Your task to perform on an android device: What's the weather going to be this weekend? Image 0: 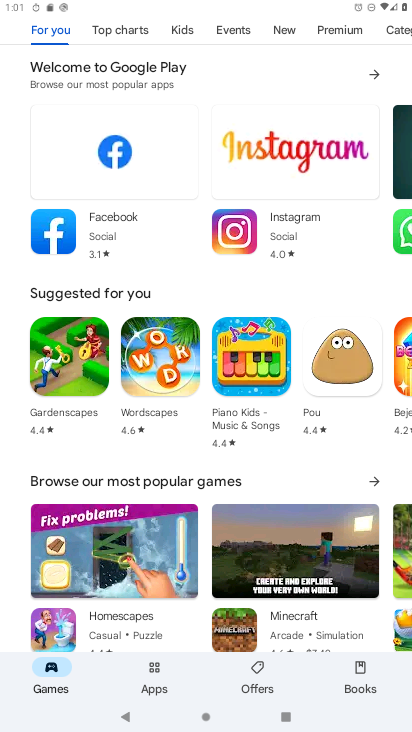
Step 0: press home button
Your task to perform on an android device: What's the weather going to be this weekend? Image 1: 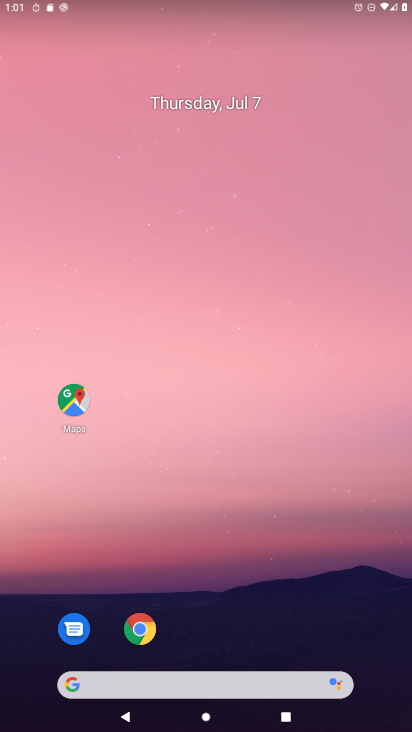
Step 1: drag from (229, 613) to (231, 117)
Your task to perform on an android device: What's the weather going to be this weekend? Image 2: 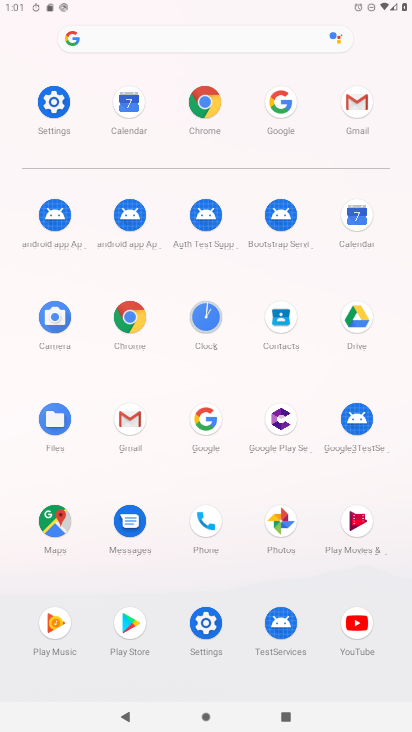
Step 2: click (198, 412)
Your task to perform on an android device: What's the weather going to be this weekend? Image 3: 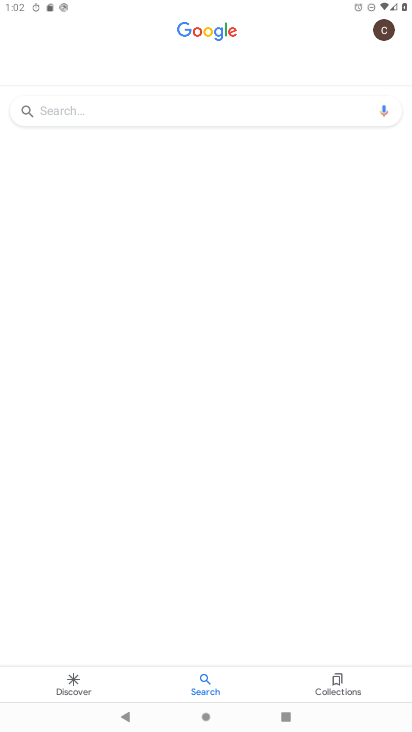
Step 3: click (170, 113)
Your task to perform on an android device: What's the weather going to be this weekend? Image 4: 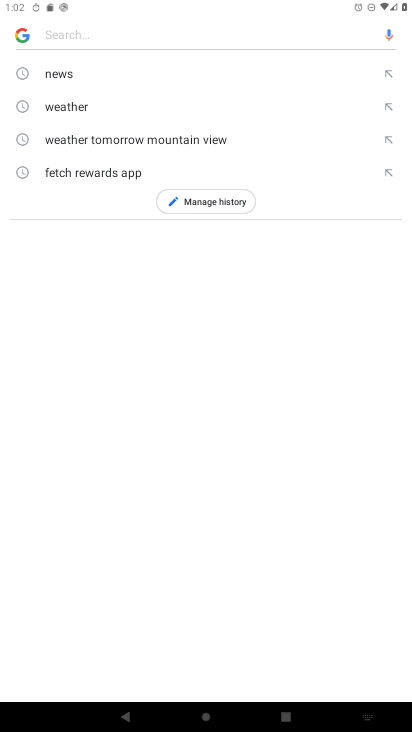
Step 4: click (104, 109)
Your task to perform on an android device: What's the weather going to be this weekend? Image 5: 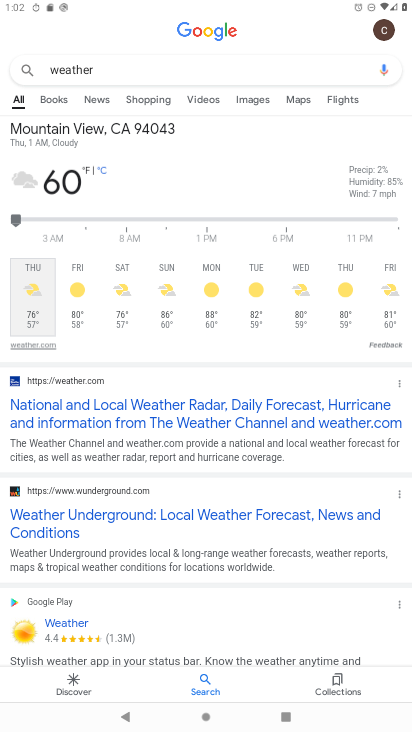
Step 5: click (298, 173)
Your task to perform on an android device: What's the weather going to be this weekend? Image 6: 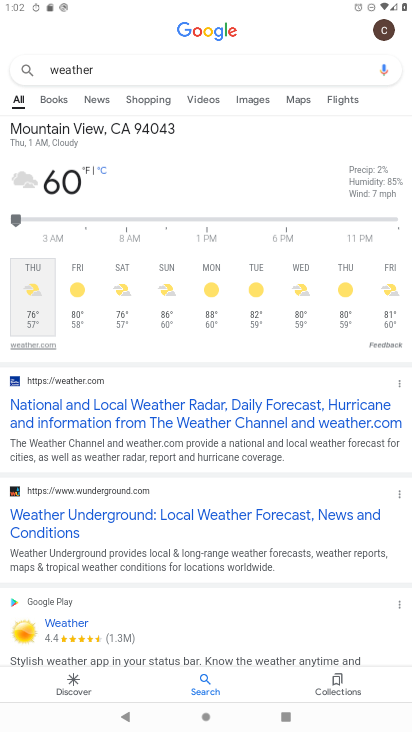
Step 6: click (213, 195)
Your task to perform on an android device: What's the weather going to be this weekend? Image 7: 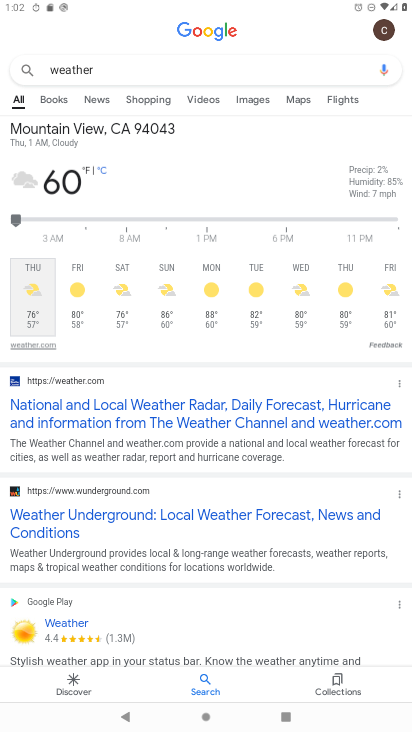
Step 7: click (121, 223)
Your task to perform on an android device: What's the weather going to be this weekend? Image 8: 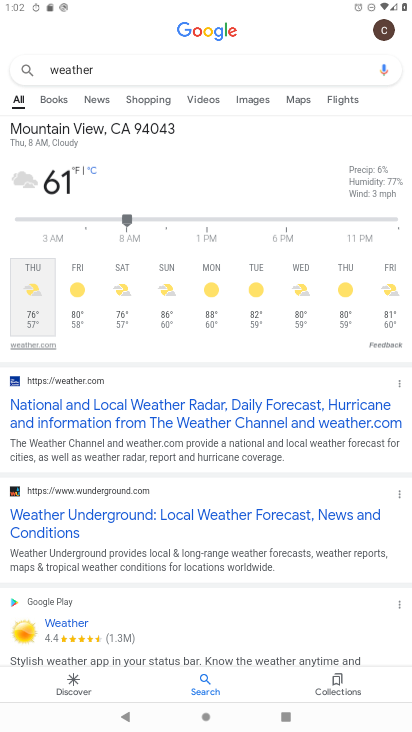
Step 8: click (59, 165)
Your task to perform on an android device: What's the weather going to be this weekend? Image 9: 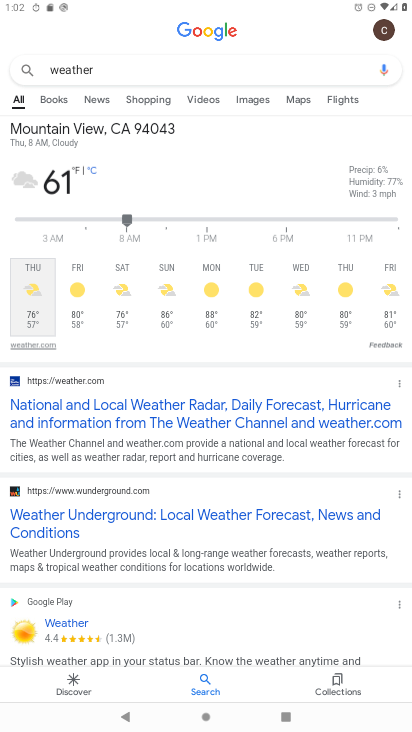
Step 9: click (43, 136)
Your task to perform on an android device: What's the weather going to be this weekend? Image 10: 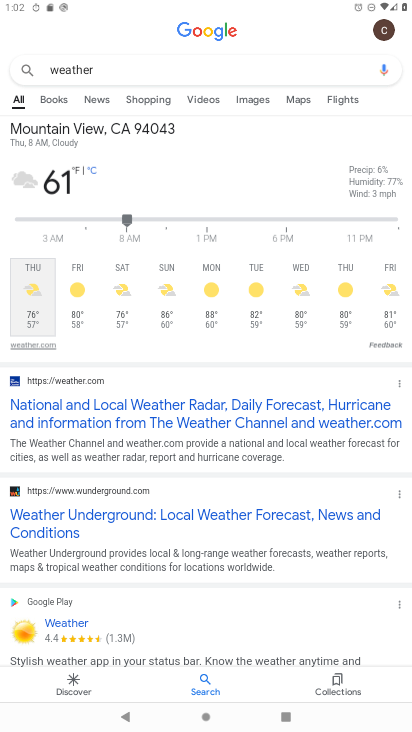
Step 10: click (57, 180)
Your task to perform on an android device: What's the weather going to be this weekend? Image 11: 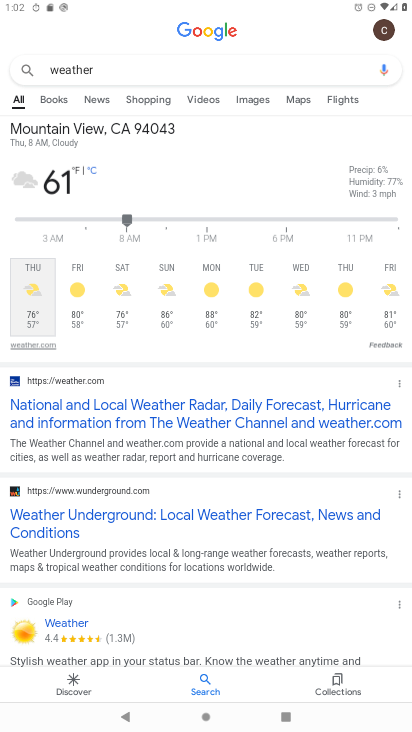
Step 11: click (40, 346)
Your task to perform on an android device: What's the weather going to be this weekend? Image 12: 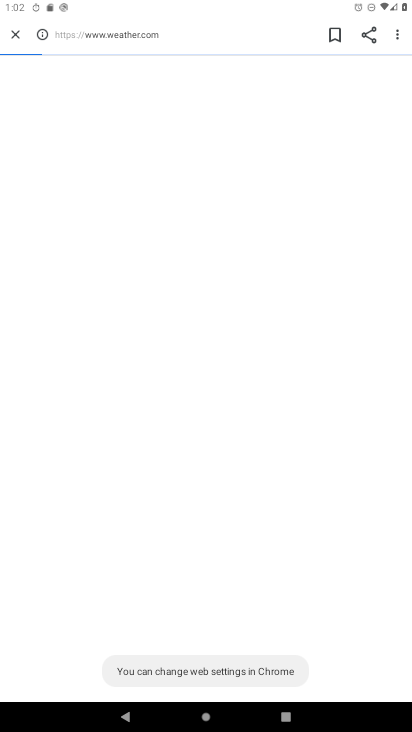
Step 12: task complete